Your task to perform on an android device: Open wifi settings Image 0: 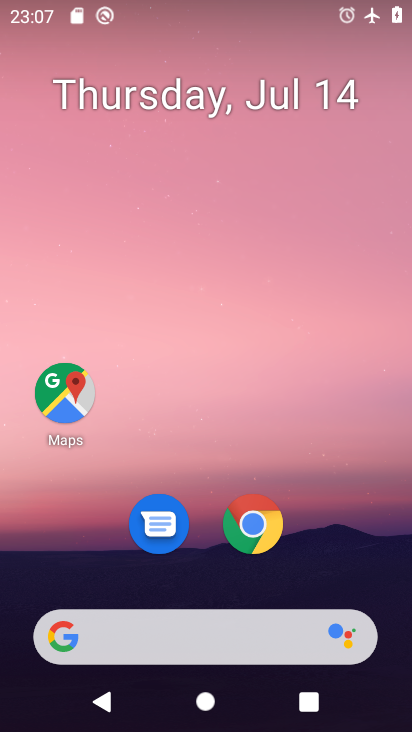
Step 0: drag from (345, 509) to (327, 4)
Your task to perform on an android device: Open wifi settings Image 1: 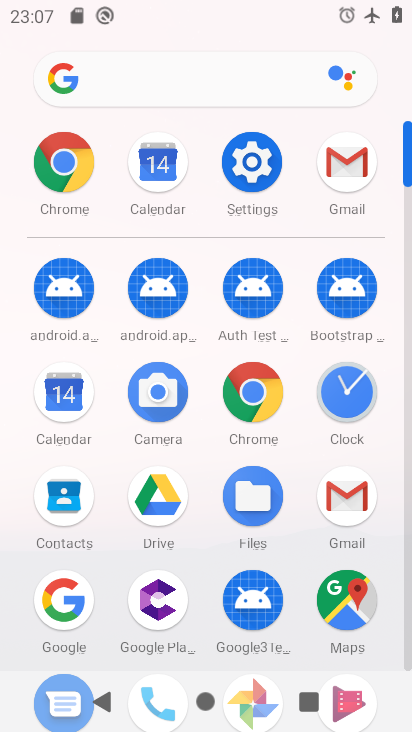
Step 1: click (267, 168)
Your task to perform on an android device: Open wifi settings Image 2: 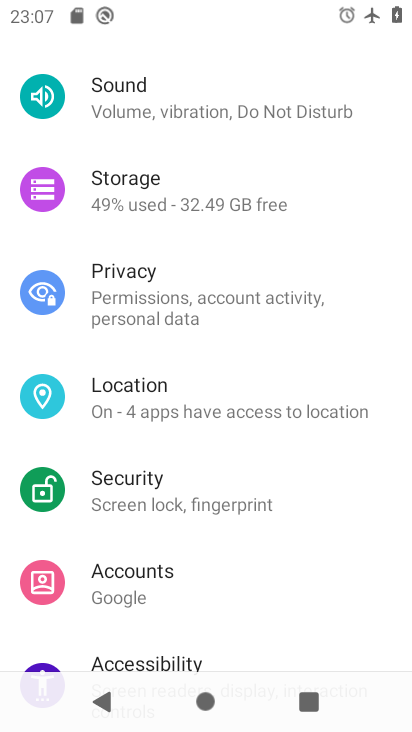
Step 2: drag from (214, 145) to (277, 665)
Your task to perform on an android device: Open wifi settings Image 3: 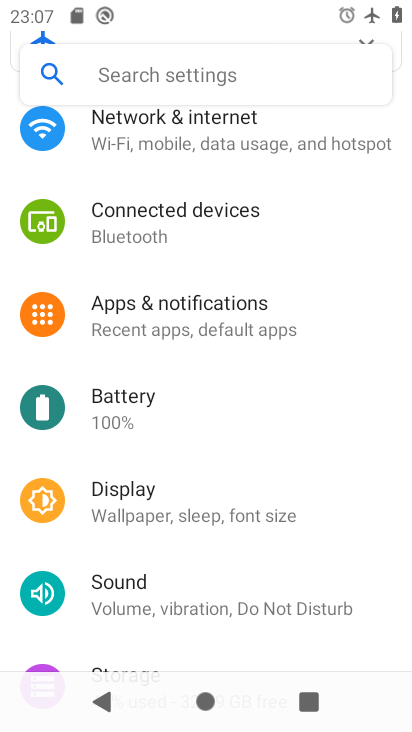
Step 3: drag from (210, 243) to (216, 491)
Your task to perform on an android device: Open wifi settings Image 4: 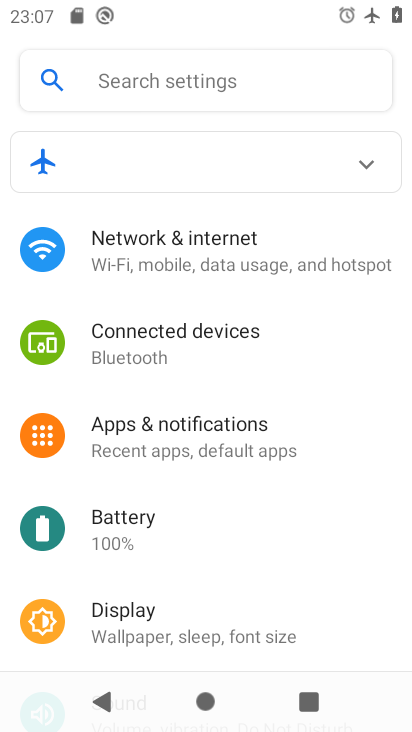
Step 4: click (252, 259)
Your task to perform on an android device: Open wifi settings Image 5: 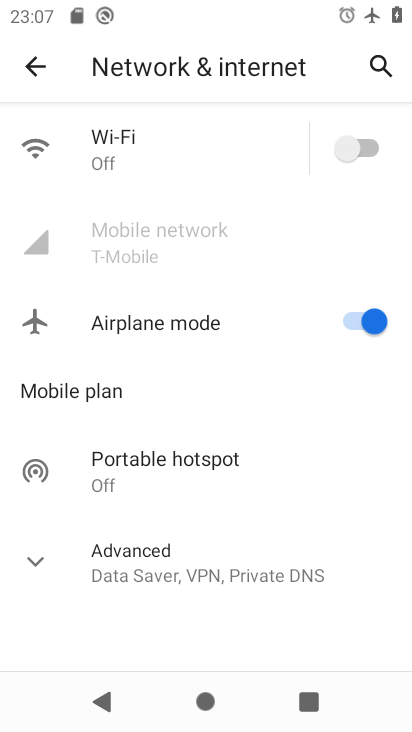
Step 5: click (131, 151)
Your task to perform on an android device: Open wifi settings Image 6: 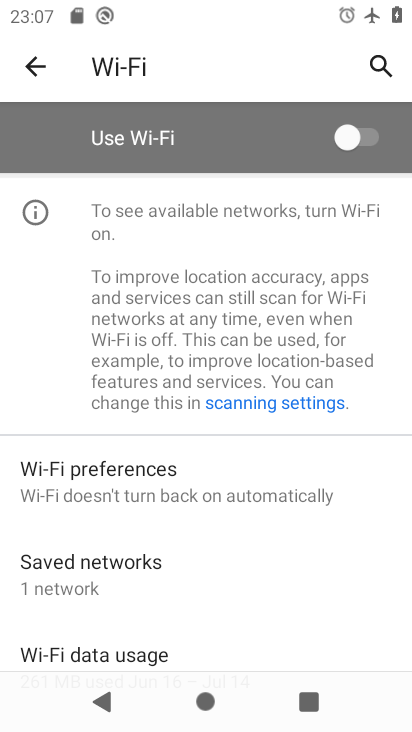
Step 6: task complete